Your task to perform on an android device: Open CNN.com Image 0: 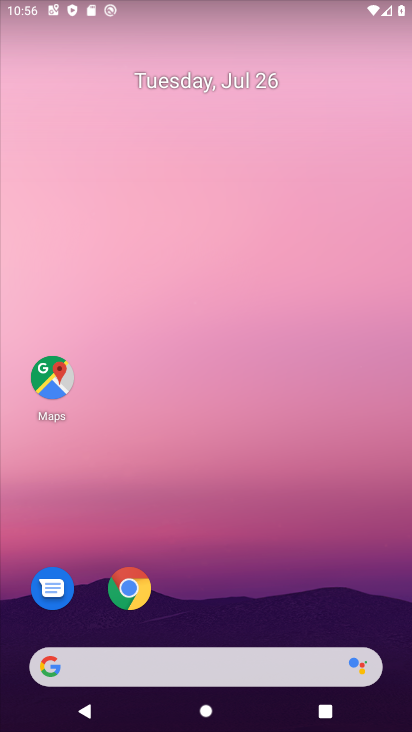
Step 0: click (252, 669)
Your task to perform on an android device: Open CNN.com Image 1: 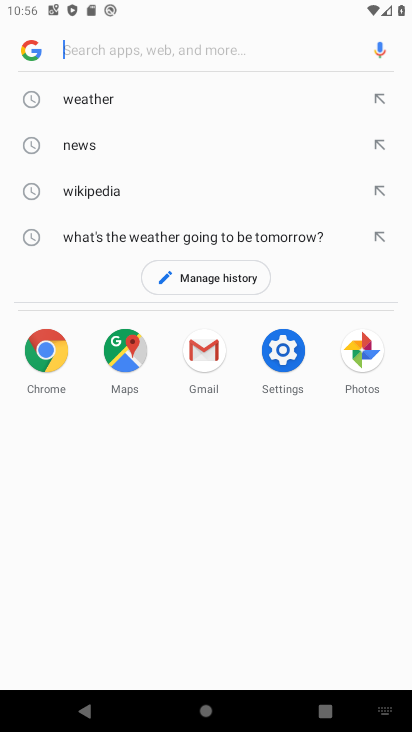
Step 1: type "CNN.com"
Your task to perform on an android device: Open CNN.com Image 2: 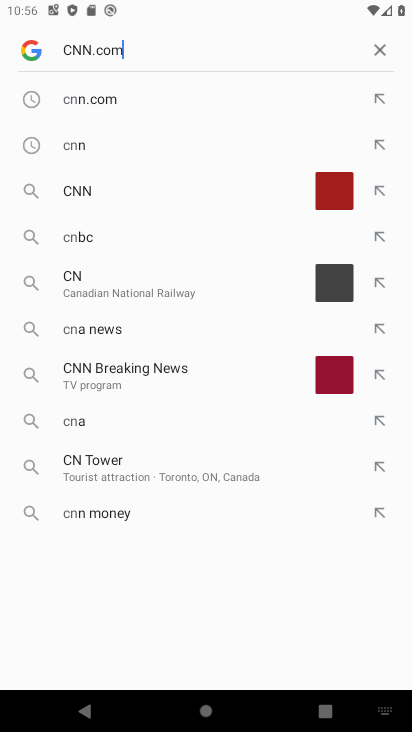
Step 2: press enter
Your task to perform on an android device: Open CNN.com Image 3: 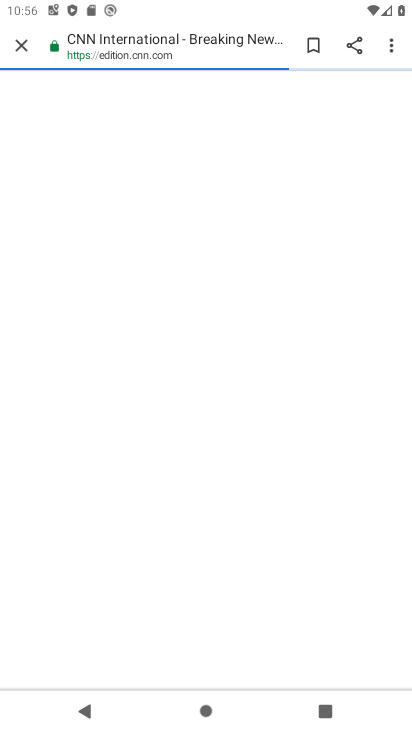
Step 3: task complete